Your task to perform on an android device: search for starred emails in the gmail app Image 0: 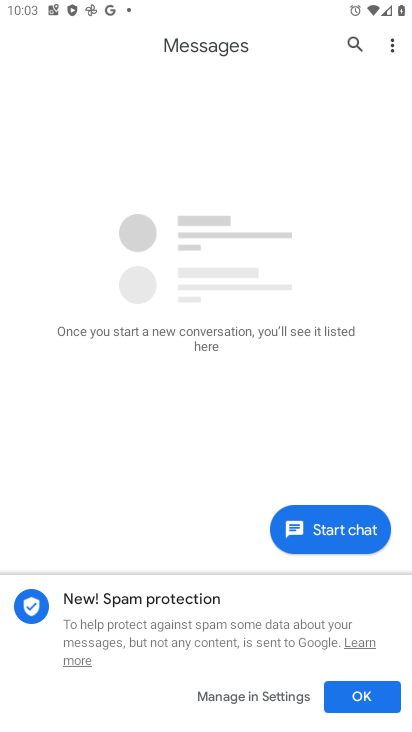
Step 0: press home button
Your task to perform on an android device: search for starred emails in the gmail app Image 1: 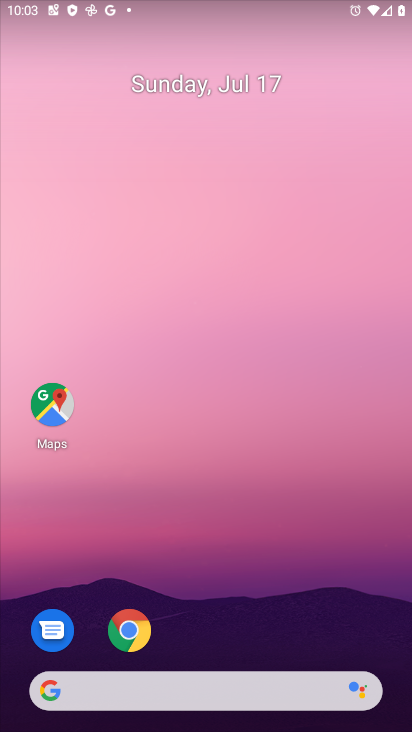
Step 1: drag from (186, 542) to (166, 15)
Your task to perform on an android device: search for starred emails in the gmail app Image 2: 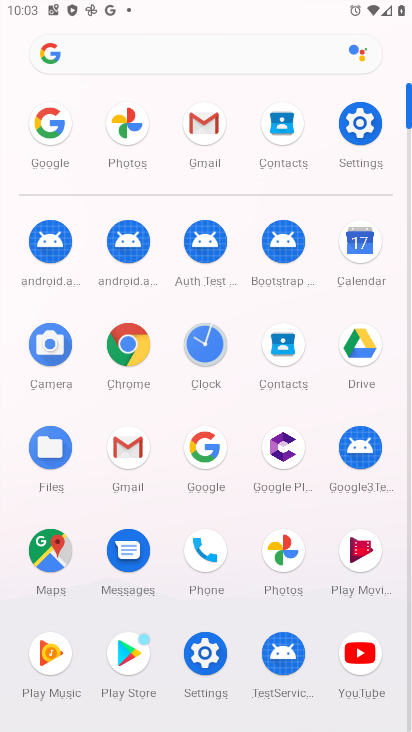
Step 2: click (121, 458)
Your task to perform on an android device: search for starred emails in the gmail app Image 3: 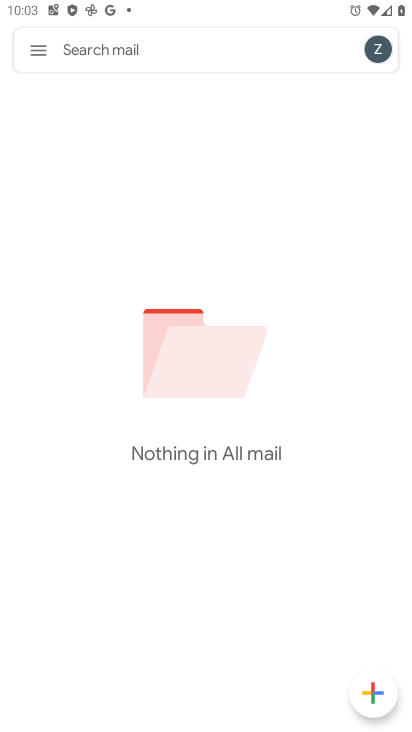
Step 3: click (40, 53)
Your task to perform on an android device: search for starred emails in the gmail app Image 4: 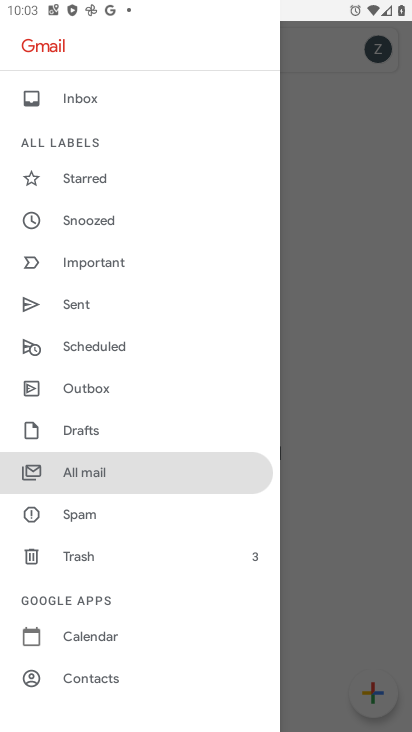
Step 4: click (71, 175)
Your task to perform on an android device: search for starred emails in the gmail app Image 5: 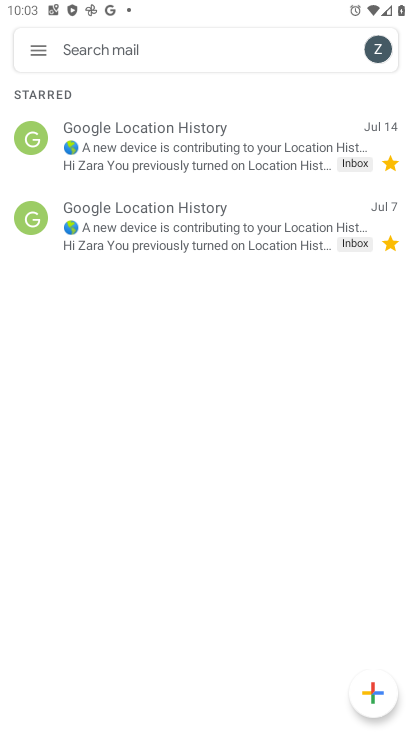
Step 5: task complete